Your task to perform on an android device: read, delete, or share a saved page in the chrome app Image 0: 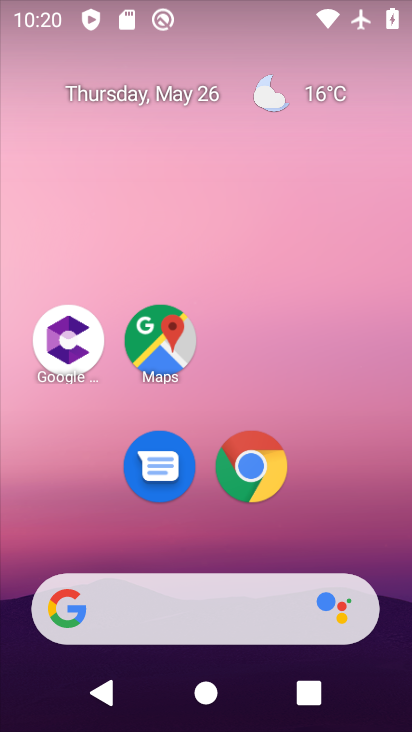
Step 0: click (233, 461)
Your task to perform on an android device: read, delete, or share a saved page in the chrome app Image 1: 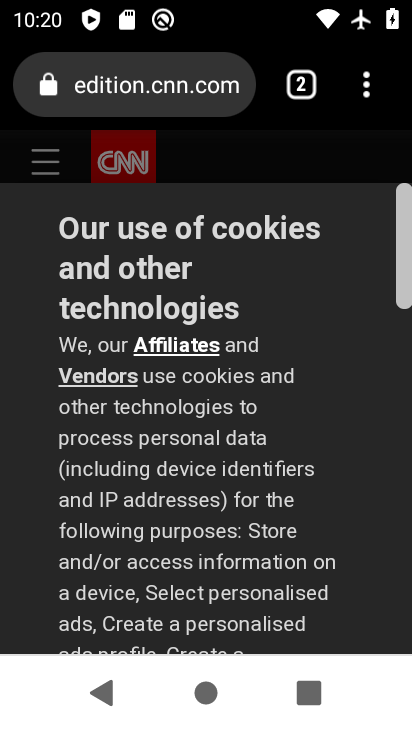
Step 1: click (365, 88)
Your task to perform on an android device: read, delete, or share a saved page in the chrome app Image 2: 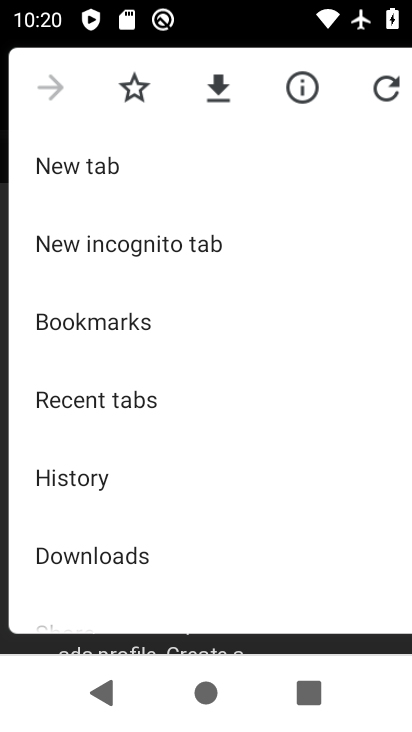
Step 2: click (103, 549)
Your task to perform on an android device: read, delete, or share a saved page in the chrome app Image 3: 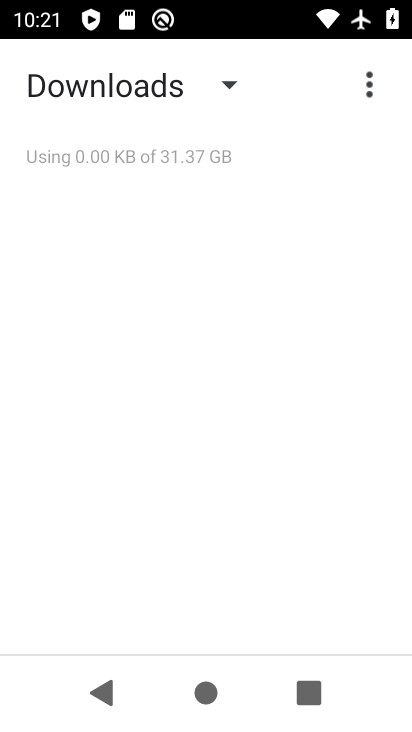
Step 3: task complete